Your task to perform on an android device: Go to Yahoo.com Image 0: 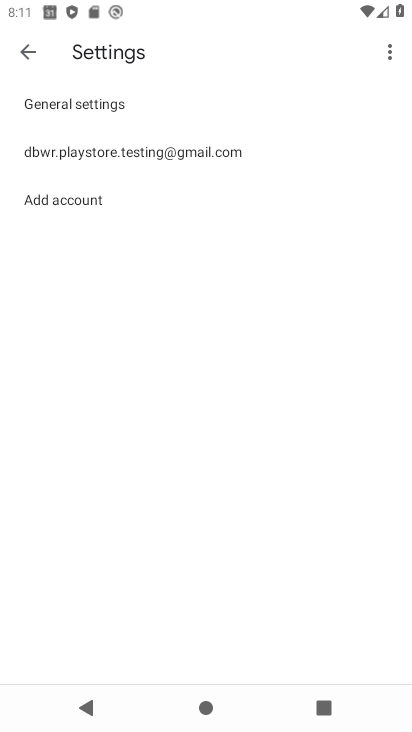
Step 0: press home button
Your task to perform on an android device: Go to Yahoo.com Image 1: 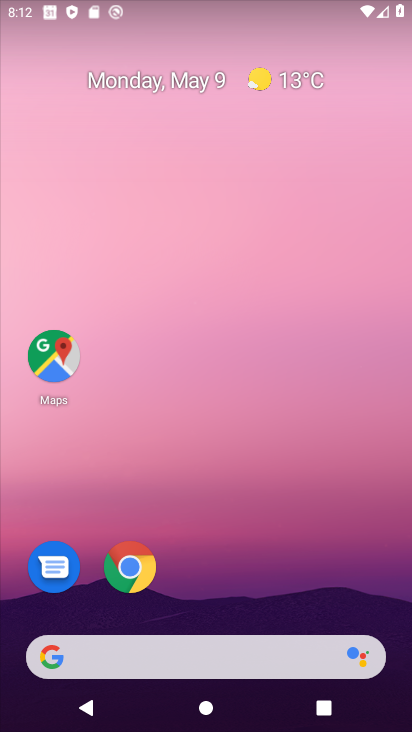
Step 1: click (260, 656)
Your task to perform on an android device: Go to Yahoo.com Image 2: 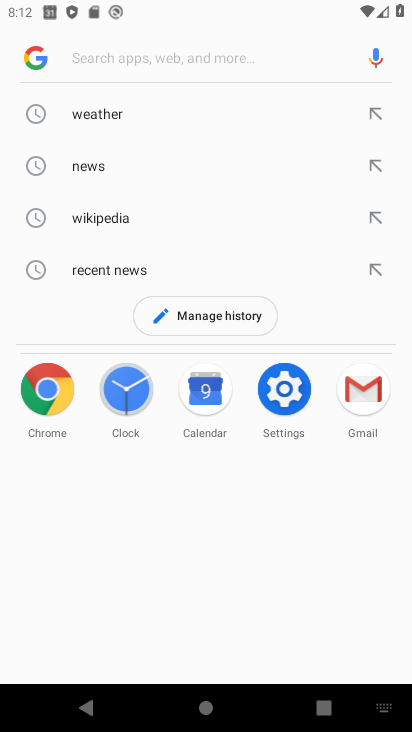
Step 2: type "yahoo.com"
Your task to perform on an android device: Go to Yahoo.com Image 3: 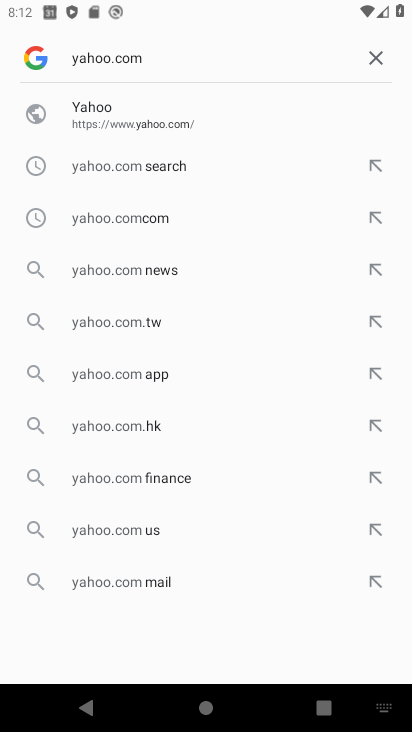
Step 3: click (90, 104)
Your task to perform on an android device: Go to Yahoo.com Image 4: 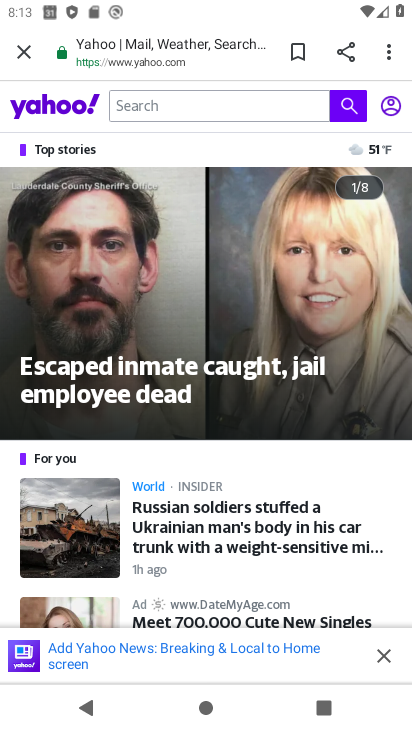
Step 4: task complete